Your task to perform on an android device: turn on translation in the chrome app Image 0: 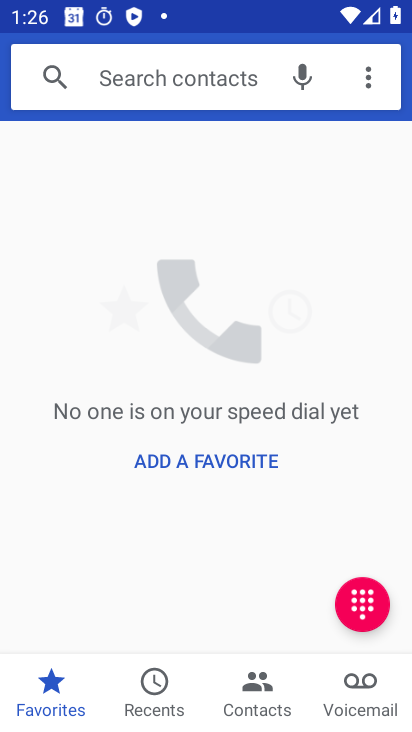
Step 0: press home button
Your task to perform on an android device: turn on translation in the chrome app Image 1: 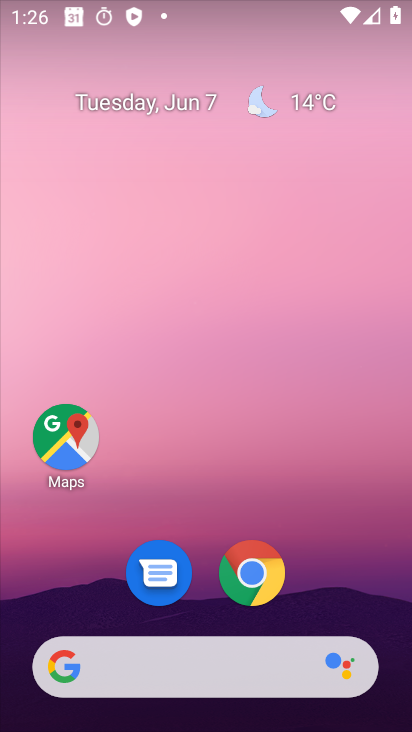
Step 1: click (247, 565)
Your task to perform on an android device: turn on translation in the chrome app Image 2: 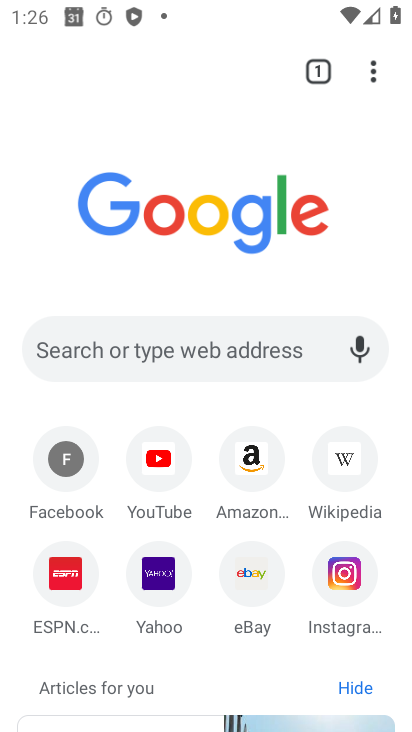
Step 2: click (374, 68)
Your task to perform on an android device: turn on translation in the chrome app Image 3: 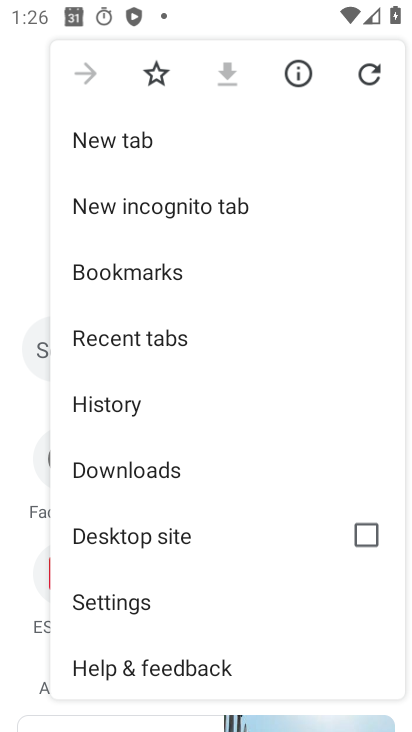
Step 3: click (164, 595)
Your task to perform on an android device: turn on translation in the chrome app Image 4: 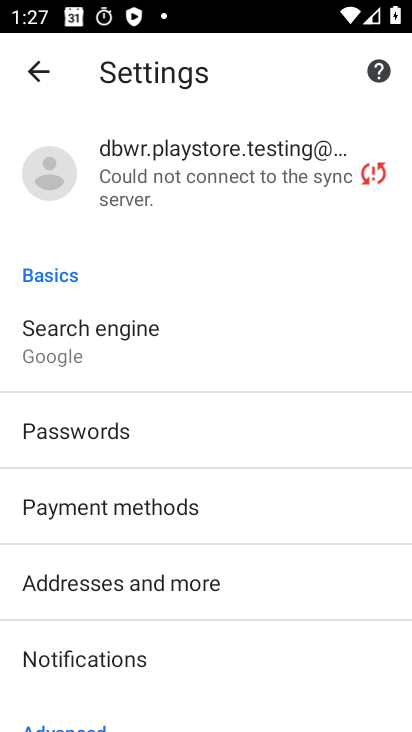
Step 4: drag from (248, 671) to (272, 122)
Your task to perform on an android device: turn on translation in the chrome app Image 5: 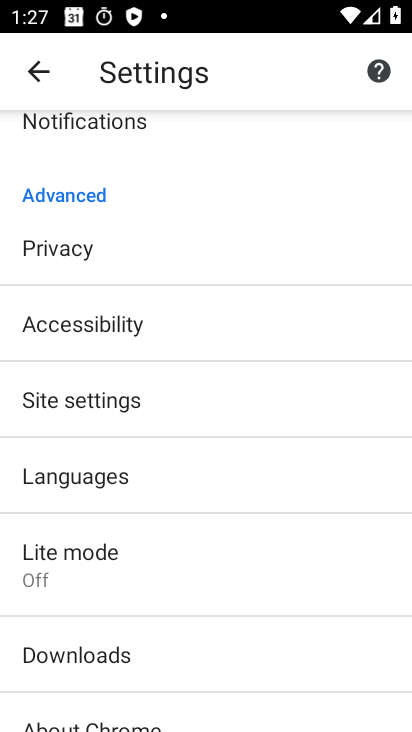
Step 5: click (166, 484)
Your task to perform on an android device: turn on translation in the chrome app Image 6: 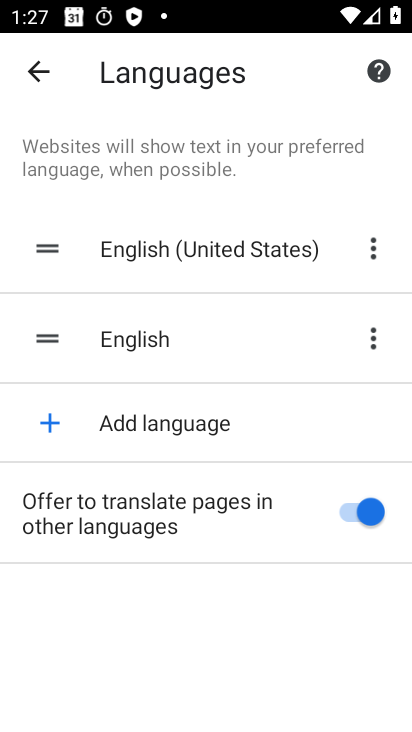
Step 6: task complete